Your task to perform on an android device: turn on bluetooth scan Image 0: 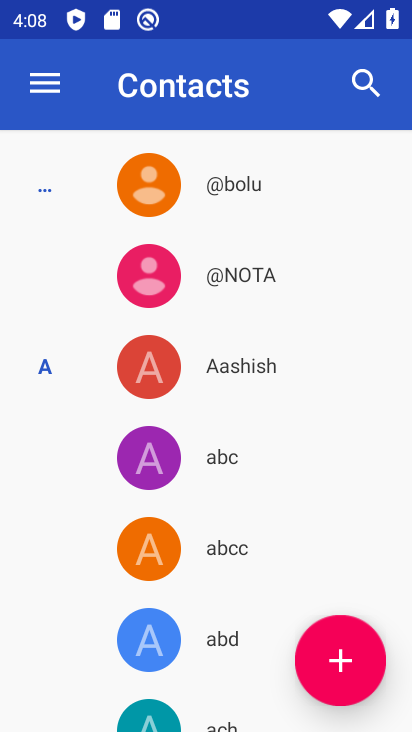
Step 0: press back button
Your task to perform on an android device: turn on bluetooth scan Image 1: 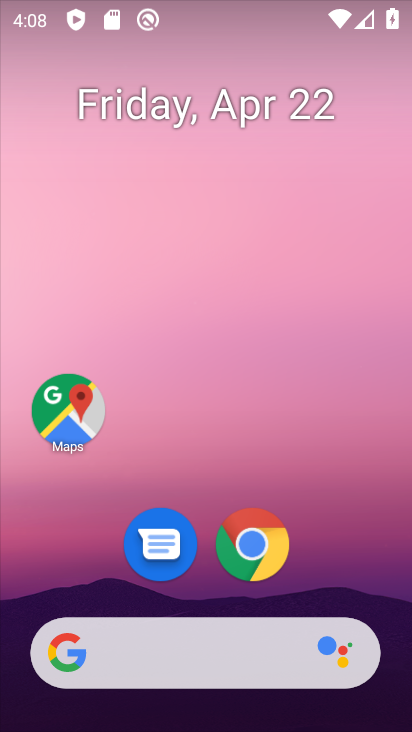
Step 1: drag from (161, 609) to (275, 188)
Your task to perform on an android device: turn on bluetooth scan Image 2: 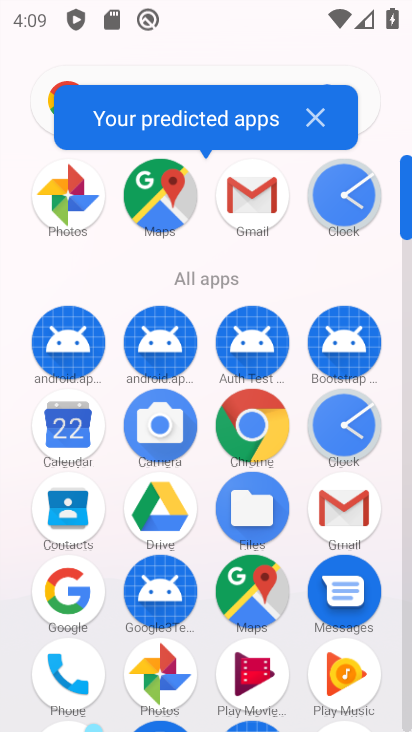
Step 2: drag from (240, 339) to (258, 154)
Your task to perform on an android device: turn on bluetooth scan Image 3: 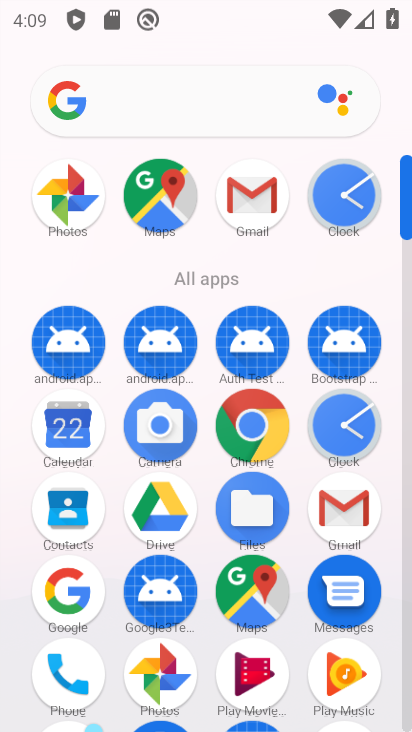
Step 3: drag from (409, 206) to (404, 522)
Your task to perform on an android device: turn on bluetooth scan Image 4: 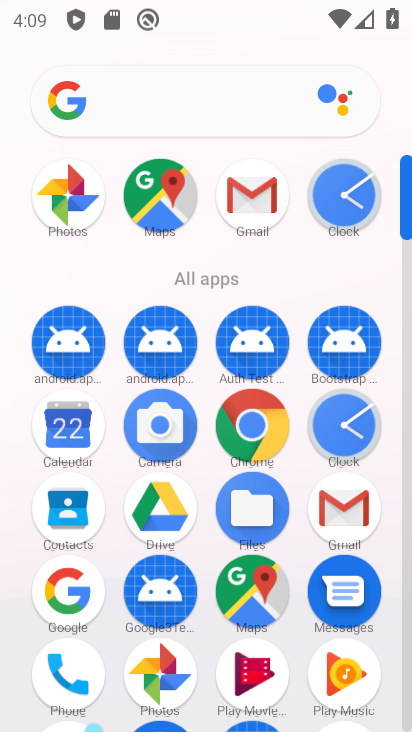
Step 4: click (407, 495)
Your task to perform on an android device: turn on bluetooth scan Image 5: 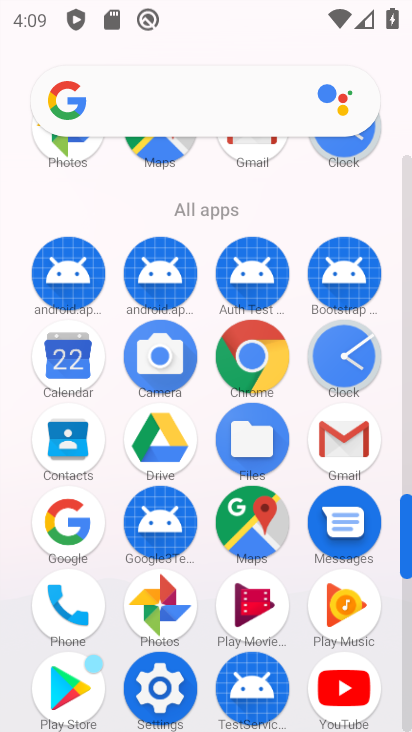
Step 5: click (146, 686)
Your task to perform on an android device: turn on bluetooth scan Image 6: 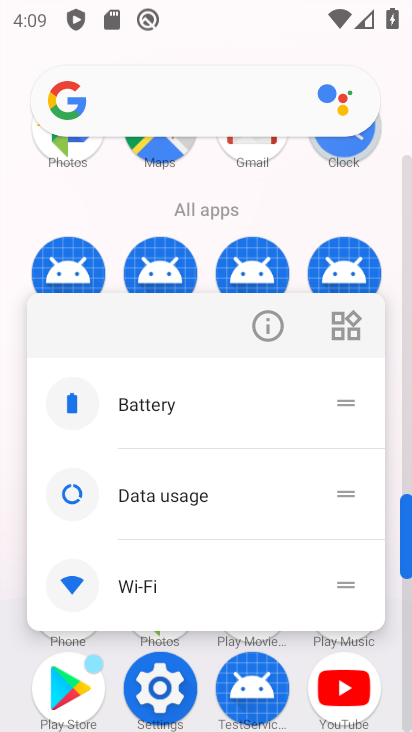
Step 6: click (145, 686)
Your task to perform on an android device: turn on bluetooth scan Image 7: 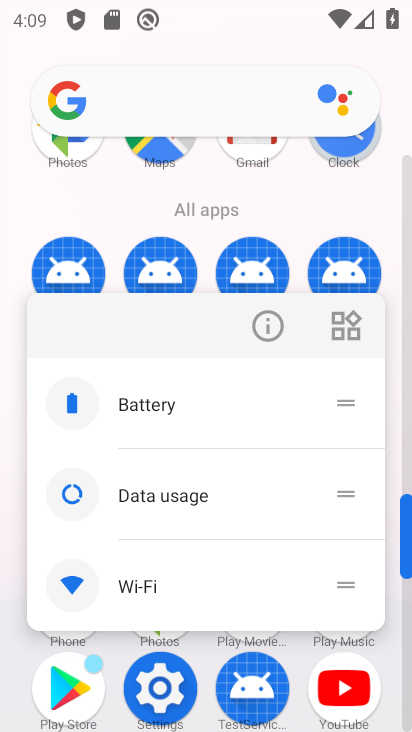
Step 7: click (150, 691)
Your task to perform on an android device: turn on bluetooth scan Image 8: 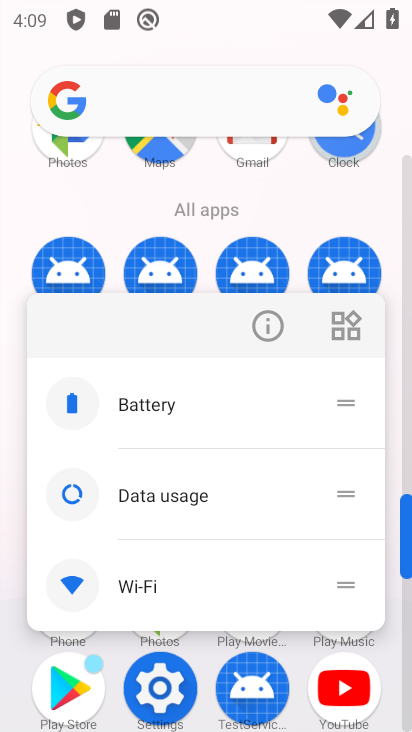
Step 8: click (150, 691)
Your task to perform on an android device: turn on bluetooth scan Image 9: 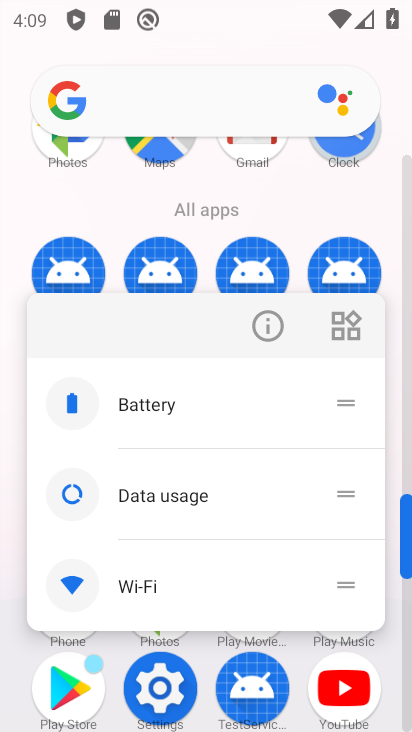
Step 9: click (162, 680)
Your task to perform on an android device: turn on bluetooth scan Image 10: 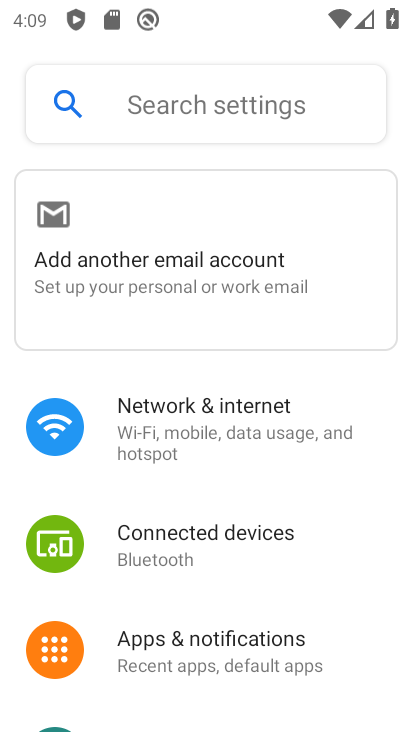
Step 10: drag from (157, 668) to (225, 183)
Your task to perform on an android device: turn on bluetooth scan Image 11: 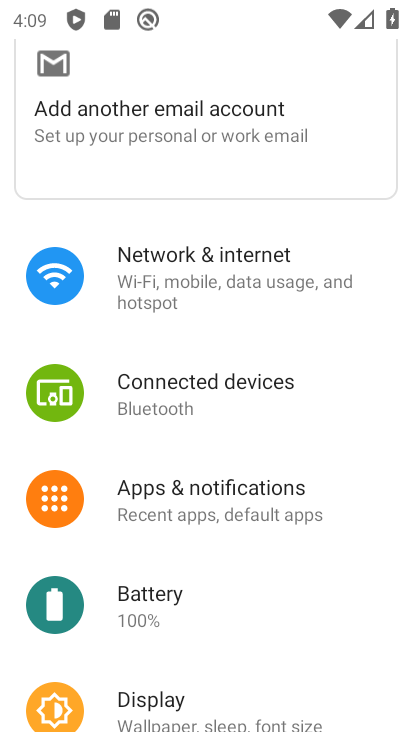
Step 11: drag from (208, 697) to (228, 322)
Your task to perform on an android device: turn on bluetooth scan Image 12: 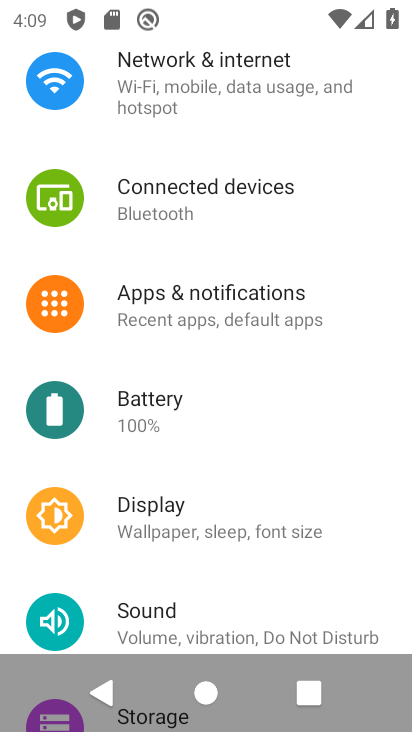
Step 12: drag from (187, 629) to (233, 216)
Your task to perform on an android device: turn on bluetooth scan Image 13: 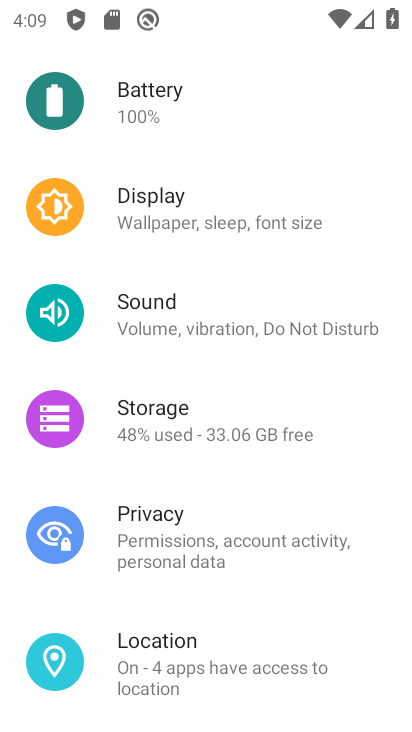
Step 13: click (172, 664)
Your task to perform on an android device: turn on bluetooth scan Image 14: 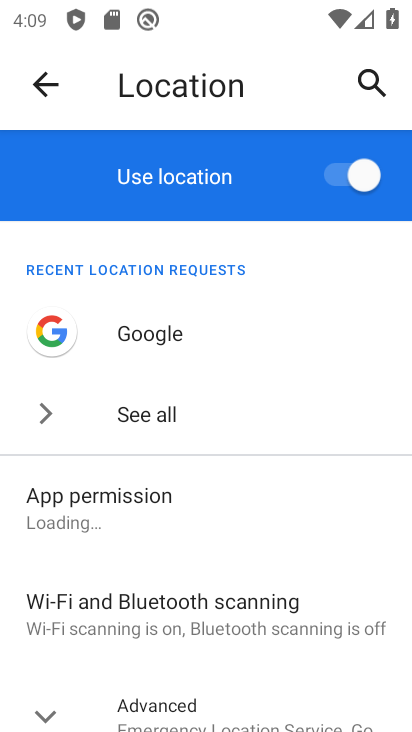
Step 14: click (122, 612)
Your task to perform on an android device: turn on bluetooth scan Image 15: 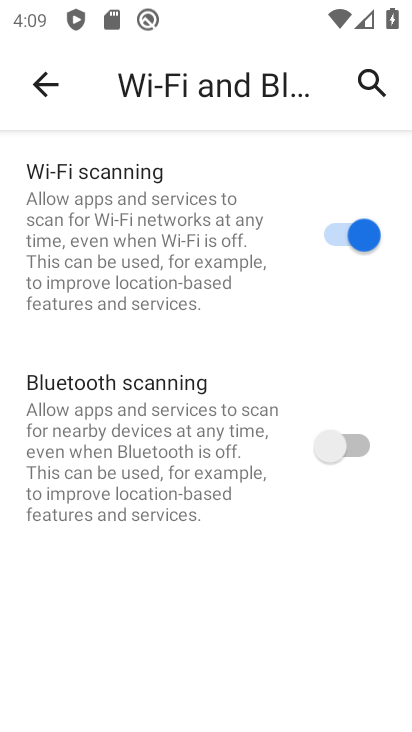
Step 15: click (353, 447)
Your task to perform on an android device: turn on bluetooth scan Image 16: 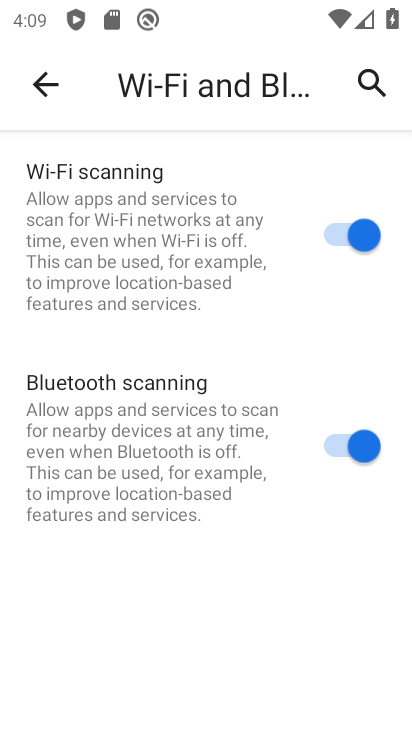
Step 16: task complete